Your task to perform on an android device: turn off sleep mode Image 0: 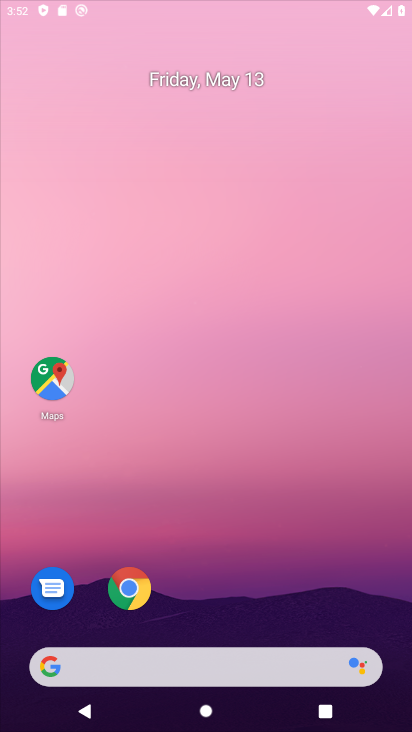
Step 0: click (370, 187)
Your task to perform on an android device: turn off sleep mode Image 1: 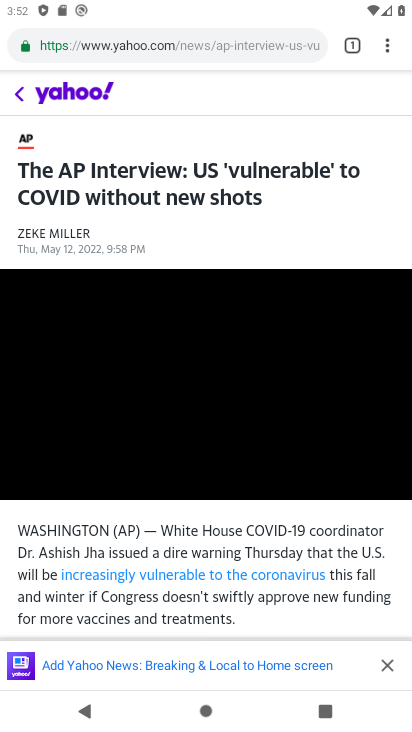
Step 1: press home button
Your task to perform on an android device: turn off sleep mode Image 2: 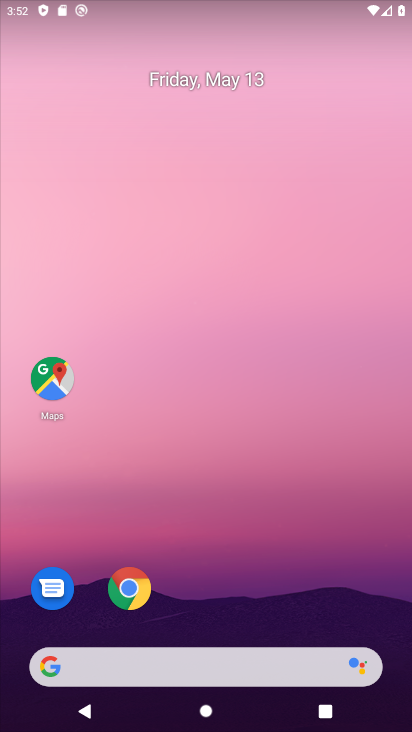
Step 2: drag from (297, 604) to (342, 256)
Your task to perform on an android device: turn off sleep mode Image 3: 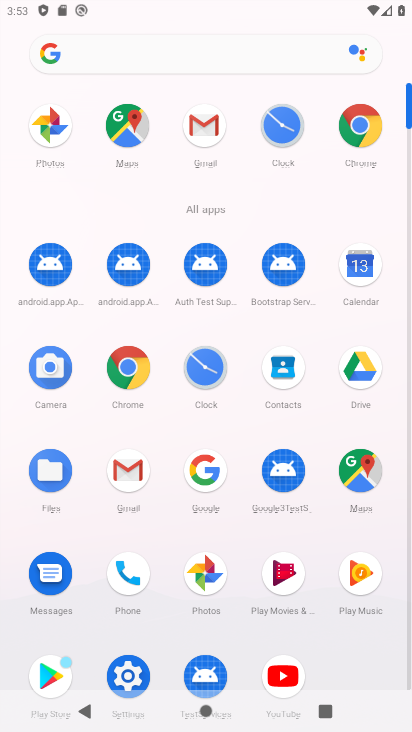
Step 3: click (123, 674)
Your task to perform on an android device: turn off sleep mode Image 4: 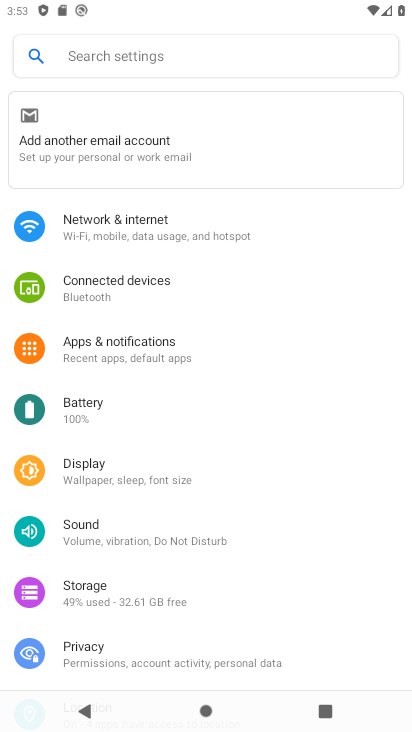
Step 4: click (154, 474)
Your task to perform on an android device: turn off sleep mode Image 5: 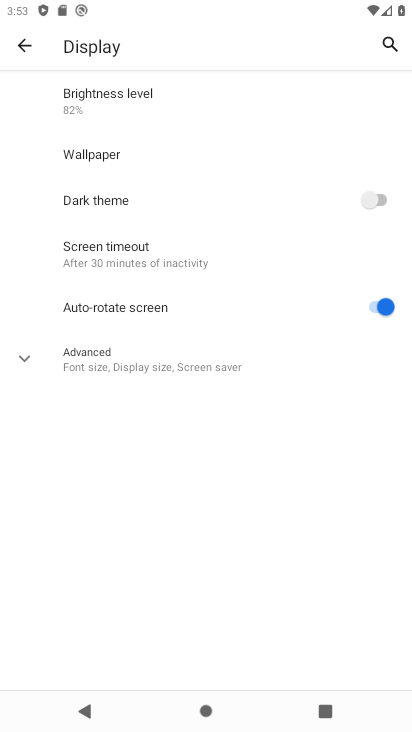
Step 5: click (31, 359)
Your task to perform on an android device: turn off sleep mode Image 6: 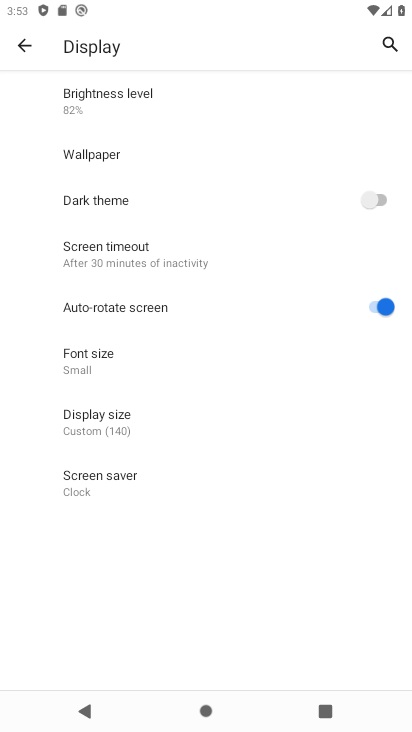
Step 6: task complete